Your task to perform on an android device: Check the news Image 0: 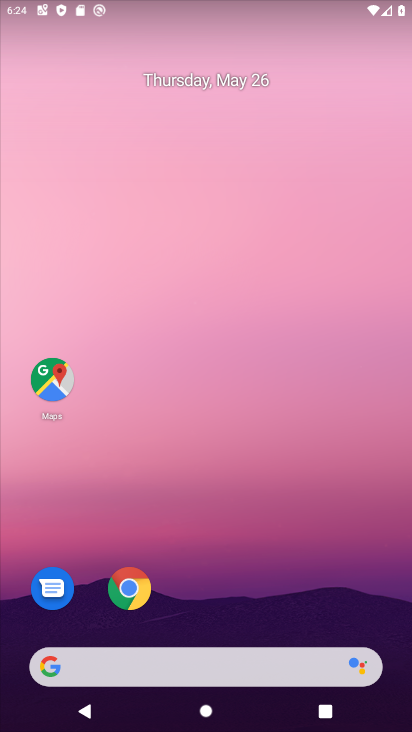
Step 0: drag from (358, 622) to (255, 92)
Your task to perform on an android device: Check the news Image 1: 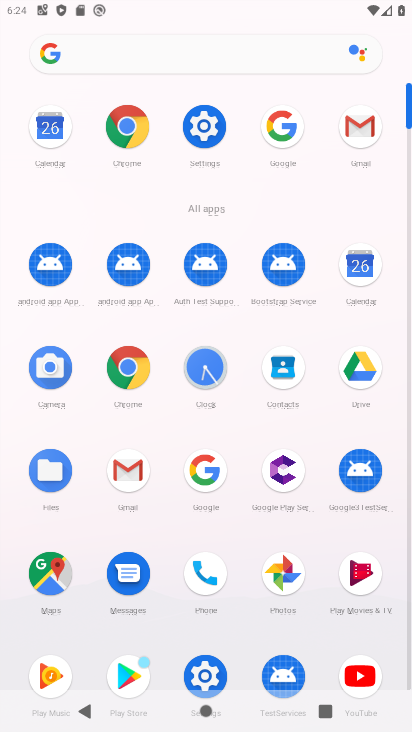
Step 1: click (204, 453)
Your task to perform on an android device: Check the news Image 2: 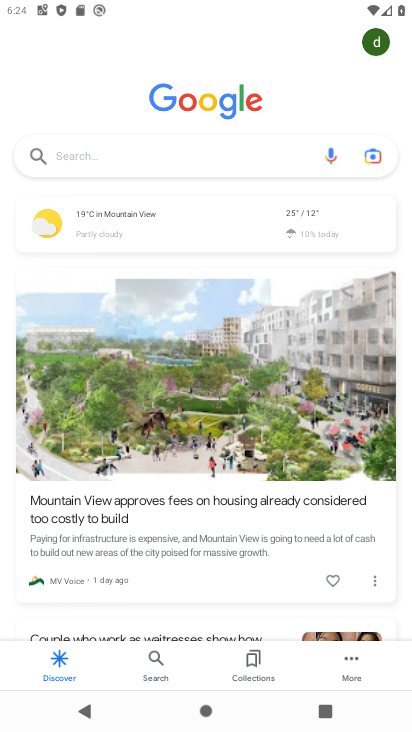
Step 2: click (152, 49)
Your task to perform on an android device: Check the news Image 3: 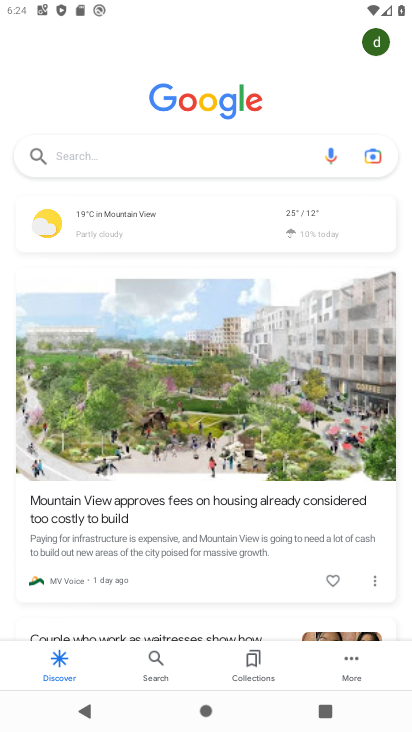
Step 3: click (99, 143)
Your task to perform on an android device: Check the news Image 4: 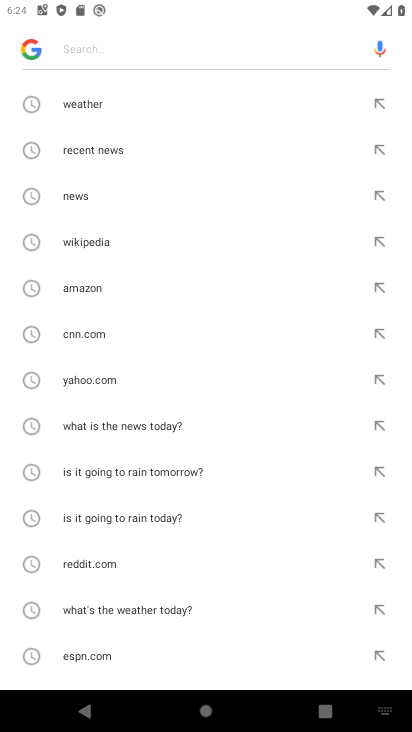
Step 4: click (77, 194)
Your task to perform on an android device: Check the news Image 5: 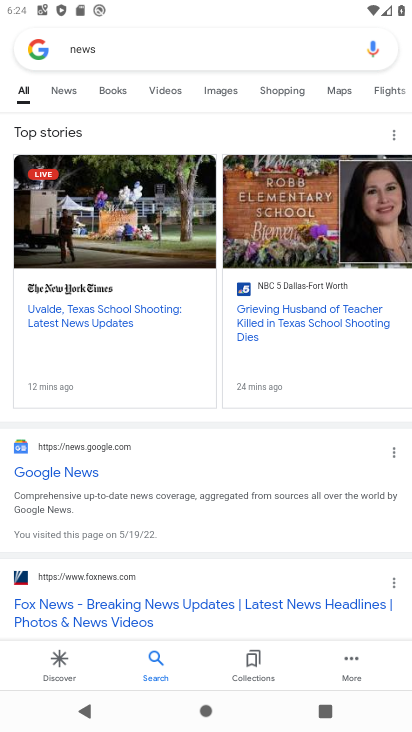
Step 5: task complete